Your task to perform on an android device: Go to Wikipedia Image 0: 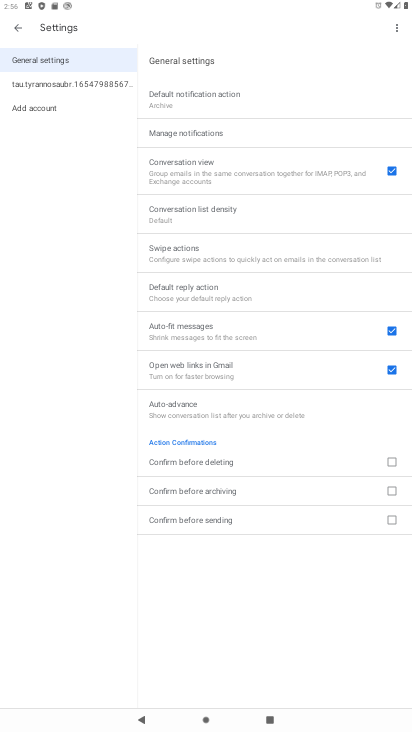
Step 0: press home button
Your task to perform on an android device: Go to Wikipedia Image 1: 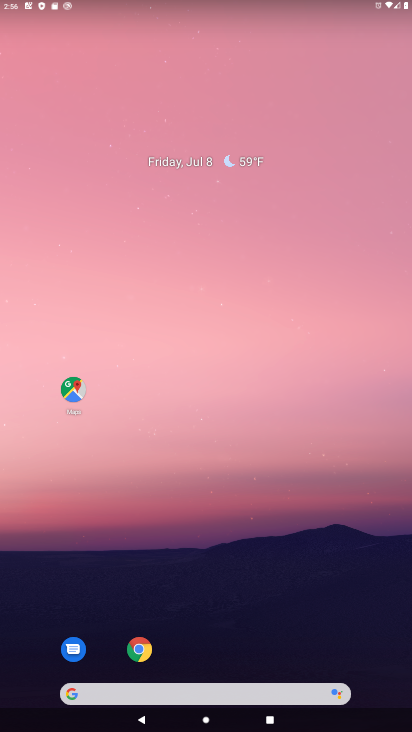
Step 1: click (137, 645)
Your task to perform on an android device: Go to Wikipedia Image 2: 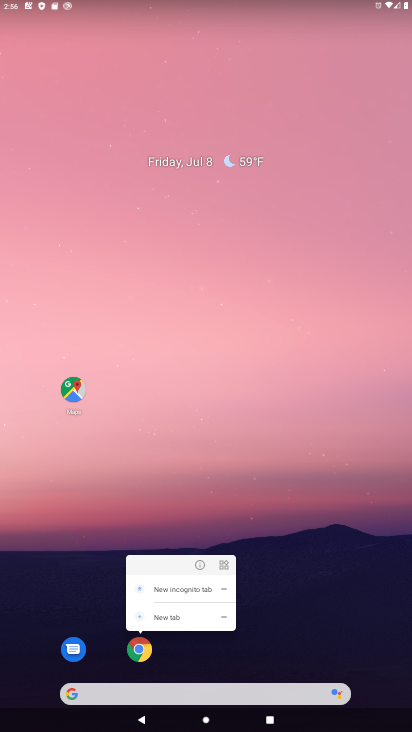
Step 2: click (140, 647)
Your task to perform on an android device: Go to Wikipedia Image 3: 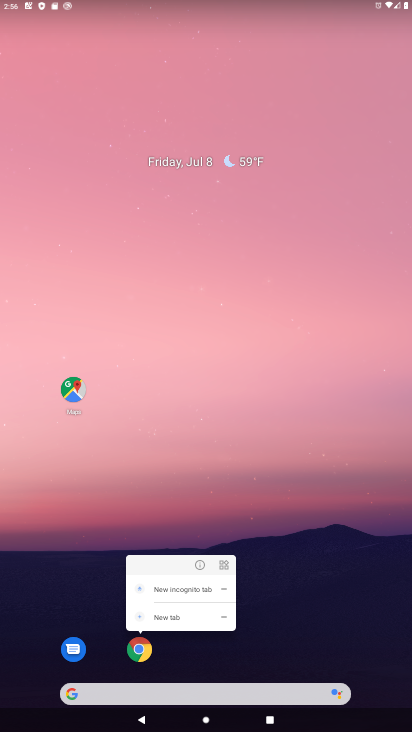
Step 3: click (278, 641)
Your task to perform on an android device: Go to Wikipedia Image 4: 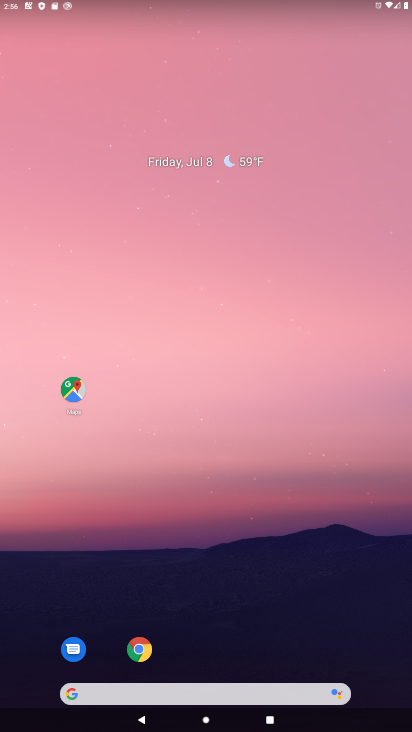
Step 4: drag from (281, 636) to (186, 126)
Your task to perform on an android device: Go to Wikipedia Image 5: 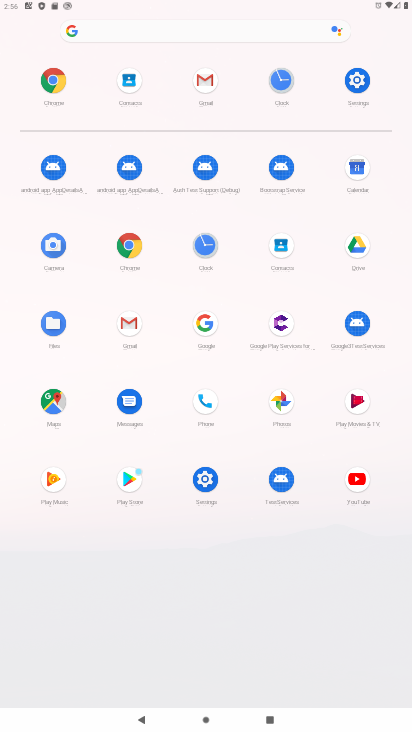
Step 5: click (132, 247)
Your task to perform on an android device: Go to Wikipedia Image 6: 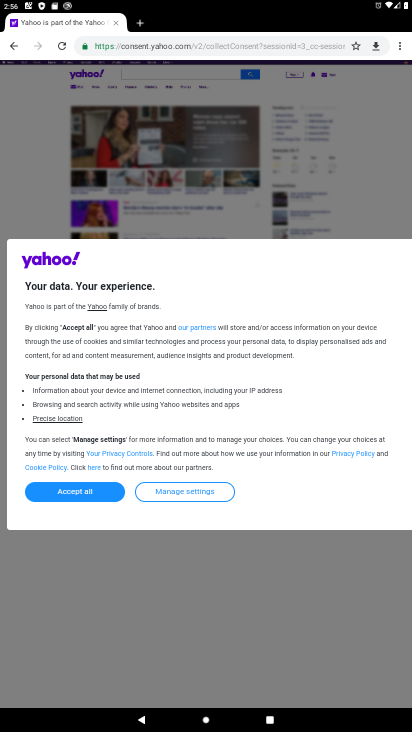
Step 6: click (227, 49)
Your task to perform on an android device: Go to Wikipedia Image 7: 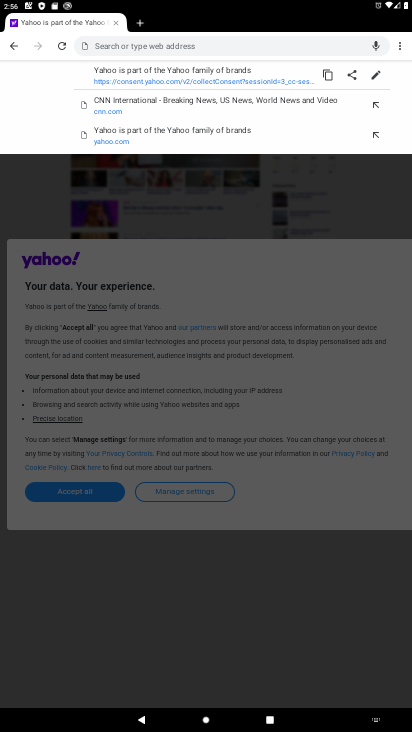
Step 7: type "wikipedia.com"
Your task to perform on an android device: Go to Wikipedia Image 8: 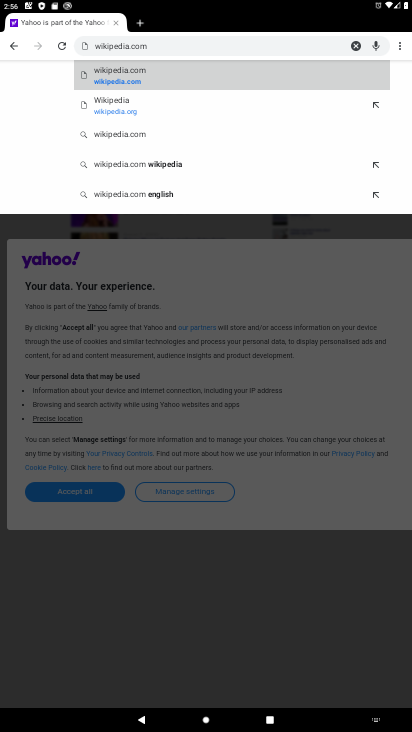
Step 8: click (100, 81)
Your task to perform on an android device: Go to Wikipedia Image 9: 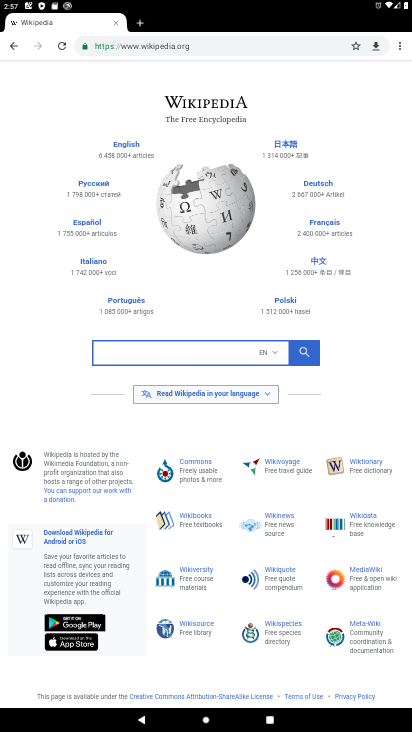
Step 9: task complete